Your task to perform on an android device: See recent photos Image 0: 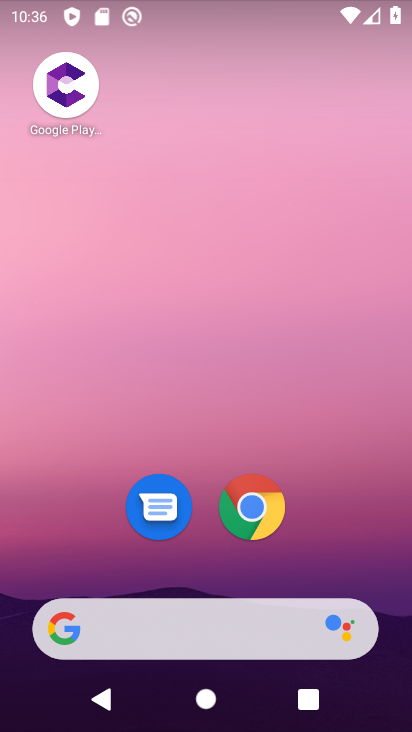
Step 0: drag from (242, 566) to (239, 15)
Your task to perform on an android device: See recent photos Image 1: 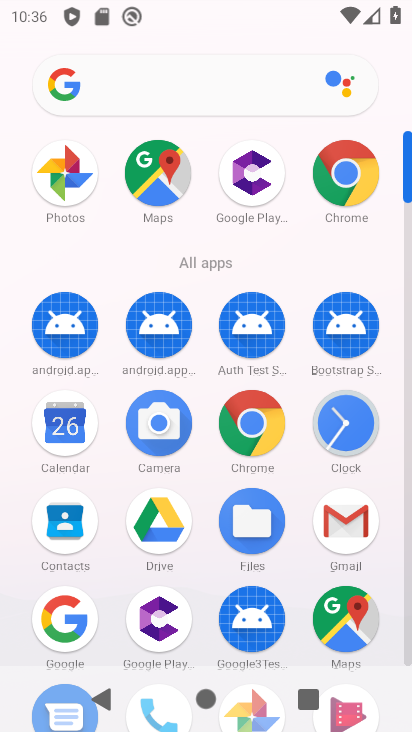
Step 1: drag from (198, 453) to (218, 184)
Your task to perform on an android device: See recent photos Image 2: 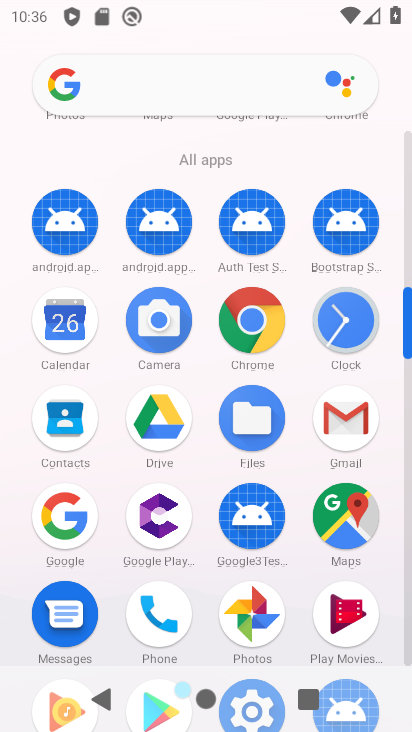
Step 2: drag from (194, 189) to (186, 88)
Your task to perform on an android device: See recent photos Image 3: 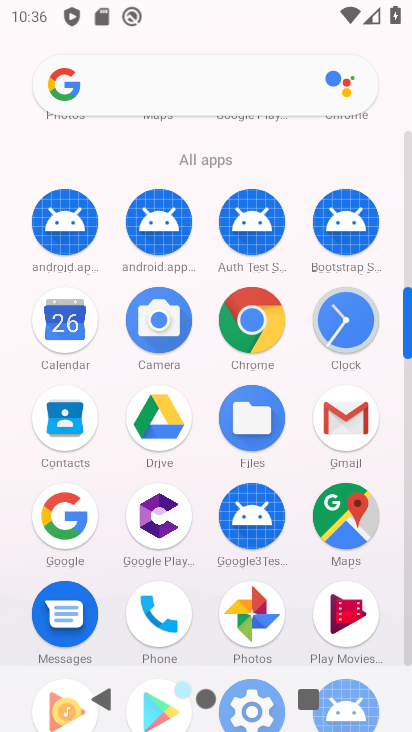
Step 3: drag from (213, 159) to (213, 52)
Your task to perform on an android device: See recent photos Image 4: 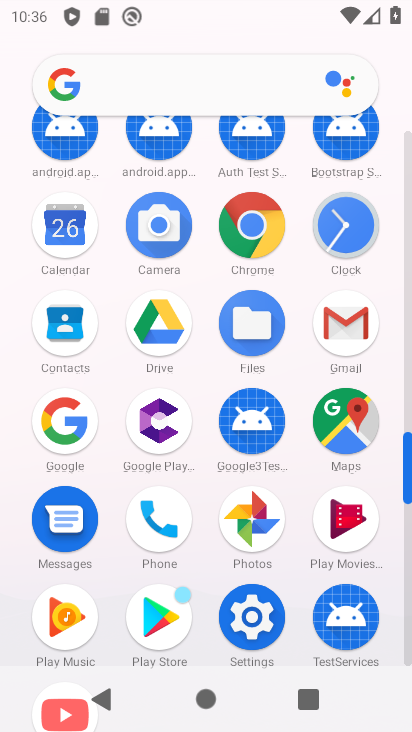
Step 4: click (253, 521)
Your task to perform on an android device: See recent photos Image 5: 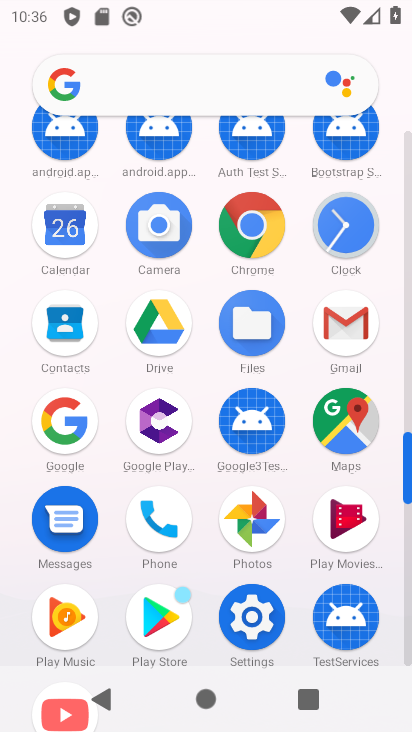
Step 5: click (253, 521)
Your task to perform on an android device: See recent photos Image 6: 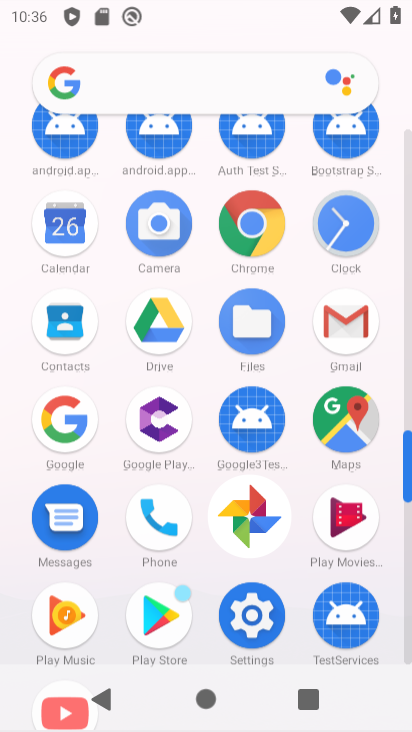
Step 6: click (253, 521)
Your task to perform on an android device: See recent photos Image 7: 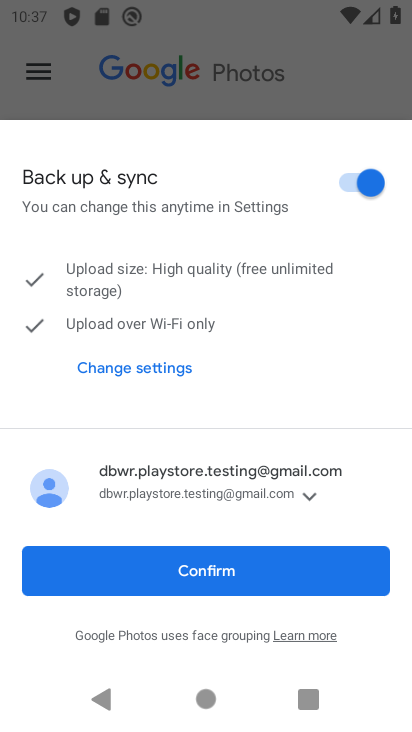
Step 7: click (207, 576)
Your task to perform on an android device: See recent photos Image 8: 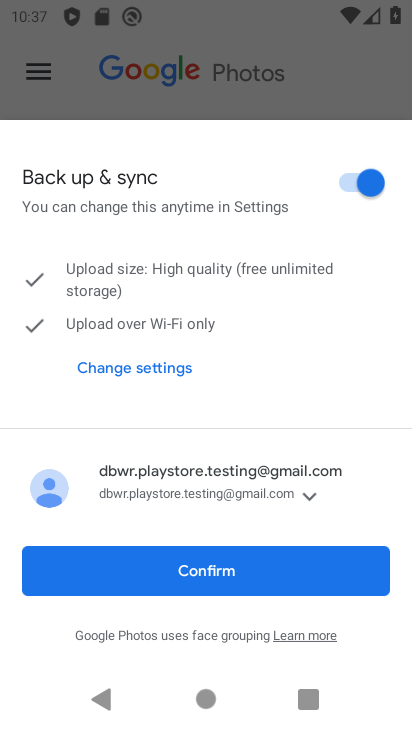
Step 8: click (208, 576)
Your task to perform on an android device: See recent photos Image 9: 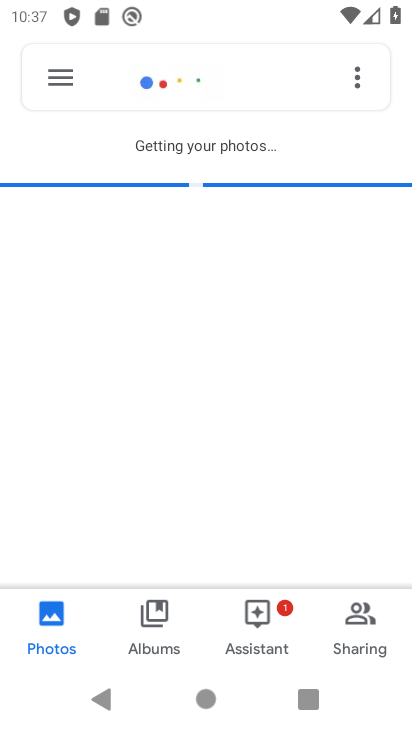
Step 9: task complete